Your task to perform on an android device: turn on airplane mode Image 0: 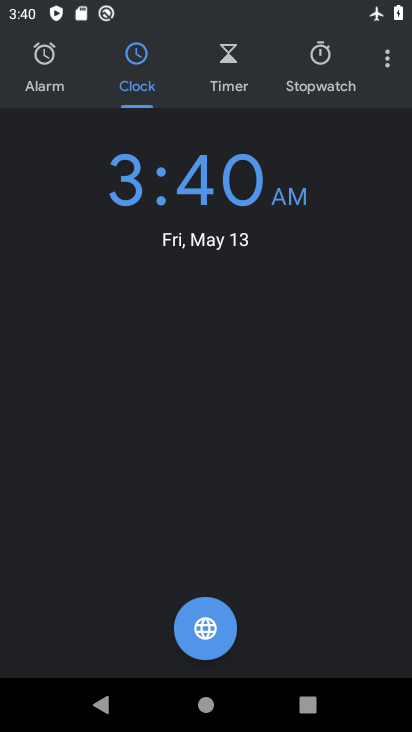
Step 0: press home button
Your task to perform on an android device: turn on airplane mode Image 1: 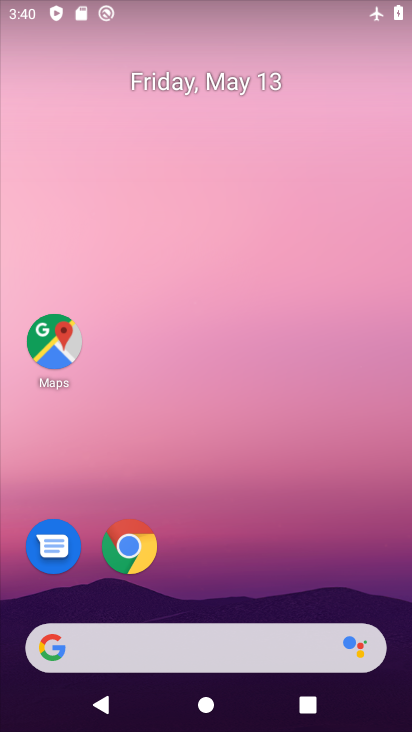
Step 1: drag from (225, 724) to (224, 293)
Your task to perform on an android device: turn on airplane mode Image 2: 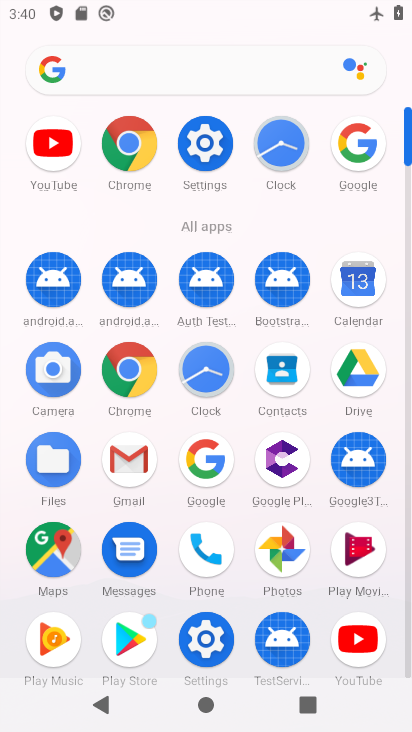
Step 2: click (201, 135)
Your task to perform on an android device: turn on airplane mode Image 3: 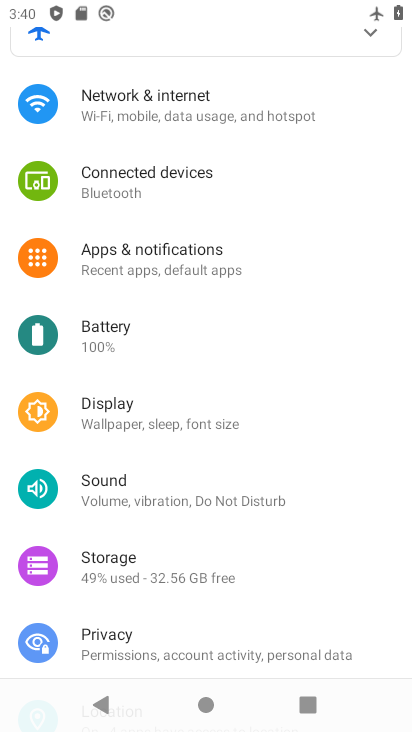
Step 3: click (123, 104)
Your task to perform on an android device: turn on airplane mode Image 4: 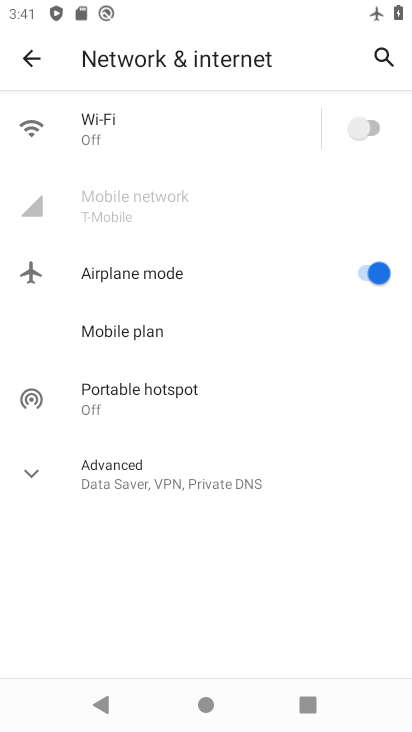
Step 4: task complete